Your task to perform on an android device: View the shopping cart on bestbuy. Image 0: 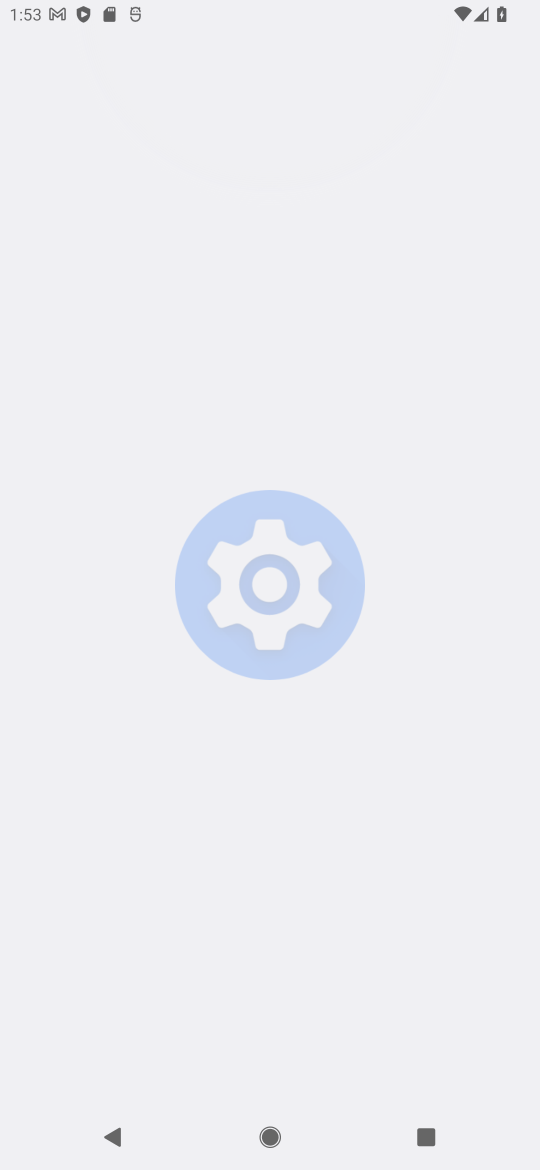
Step 0: press home button
Your task to perform on an android device: View the shopping cart on bestbuy. Image 1: 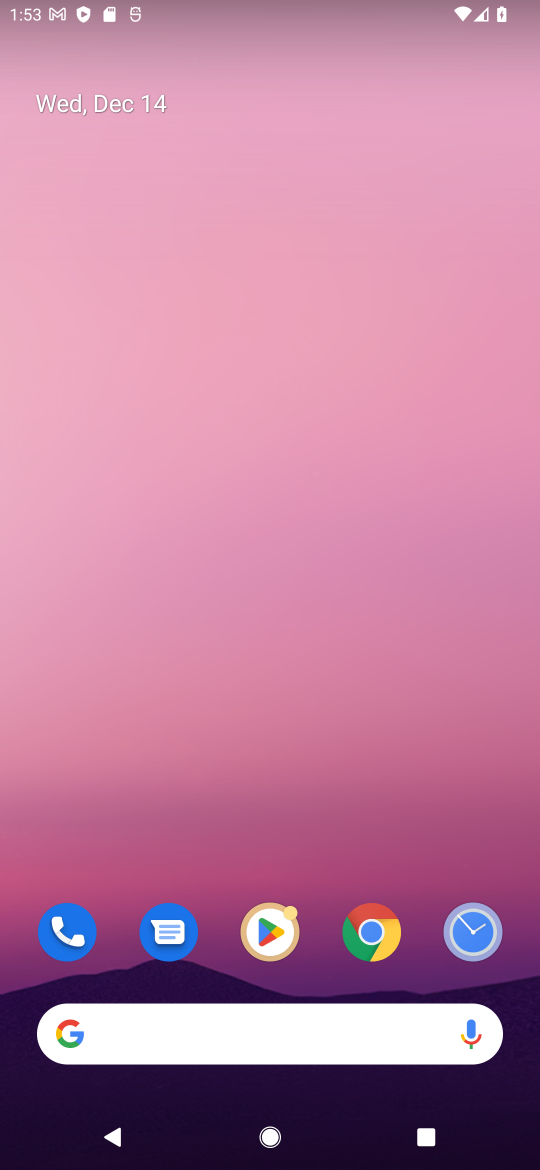
Step 1: click (280, 1012)
Your task to perform on an android device: View the shopping cart on bestbuy. Image 2: 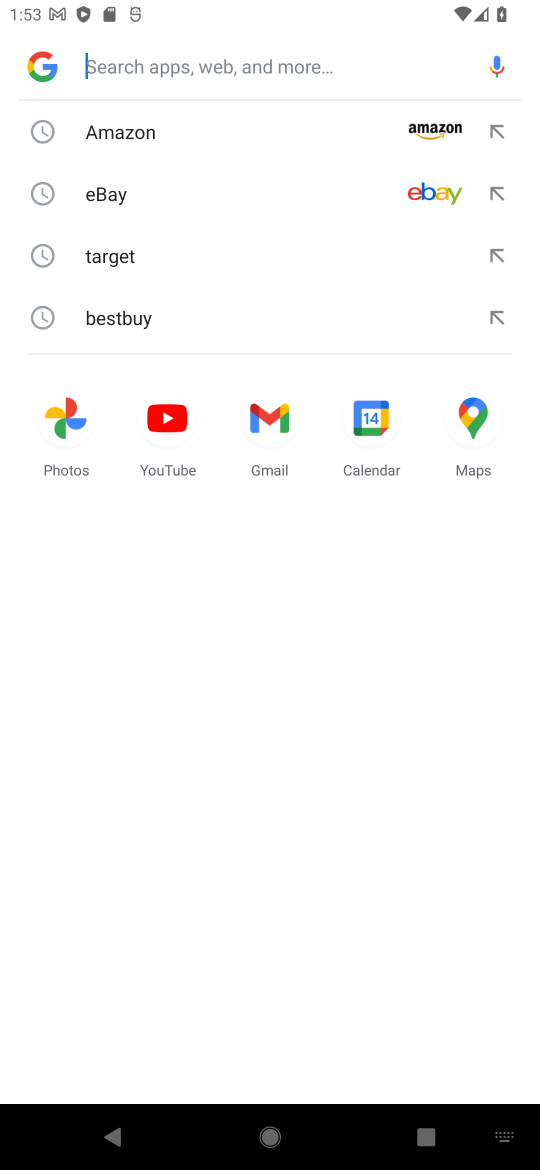
Step 2: click (108, 324)
Your task to perform on an android device: View the shopping cart on bestbuy. Image 3: 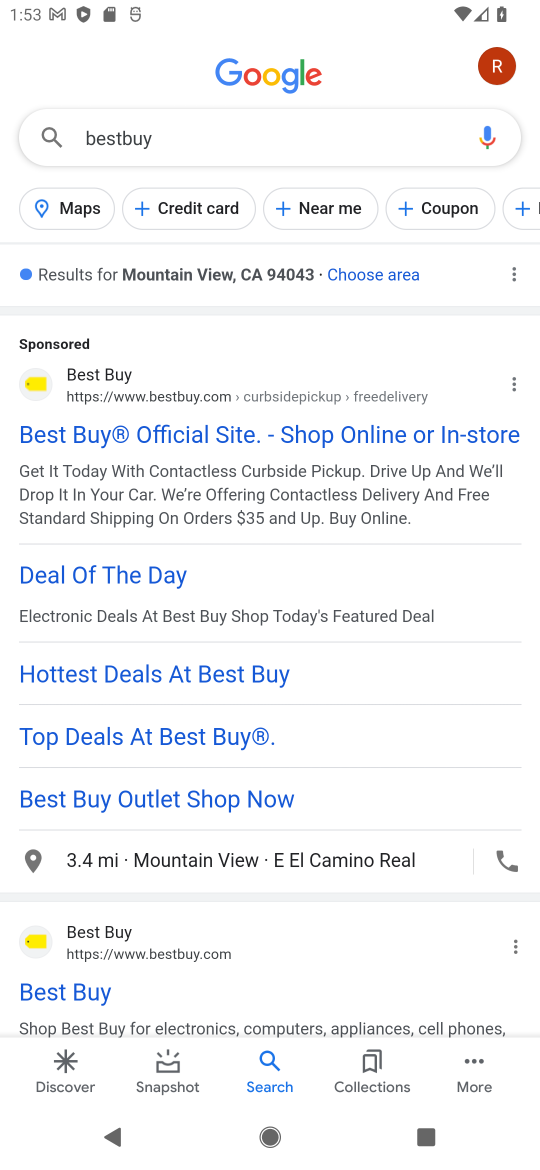
Step 3: click (101, 389)
Your task to perform on an android device: View the shopping cart on bestbuy. Image 4: 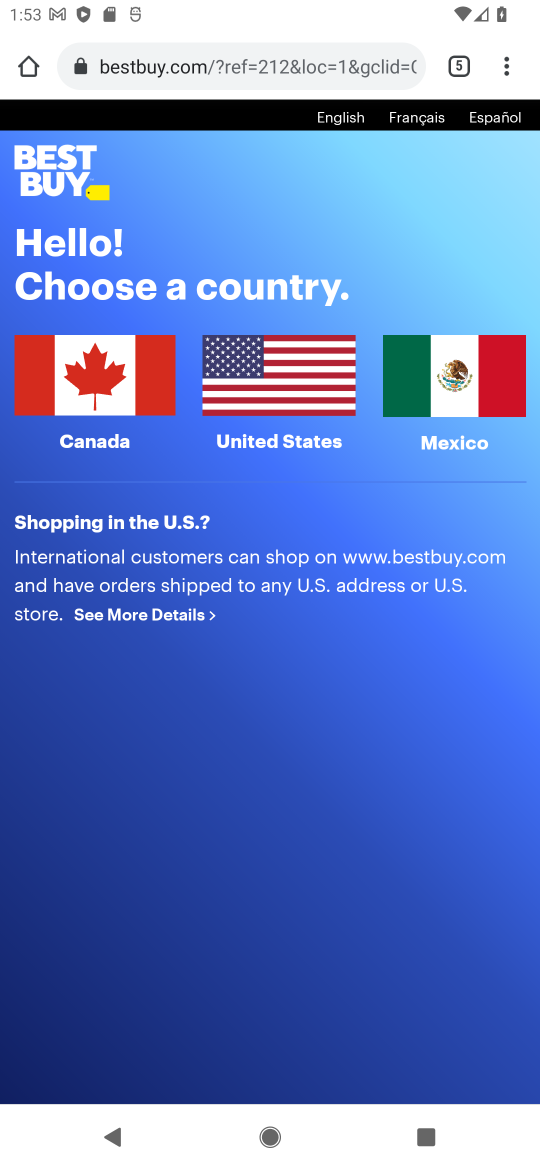
Step 4: click (278, 389)
Your task to perform on an android device: View the shopping cart on bestbuy. Image 5: 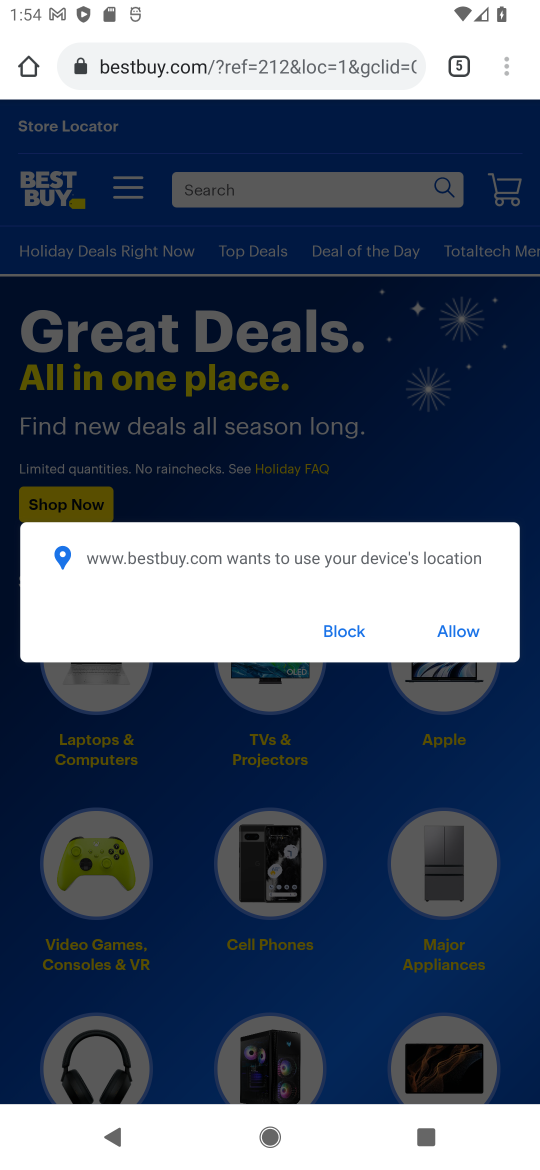
Step 5: click (505, 201)
Your task to perform on an android device: View the shopping cart on bestbuy. Image 6: 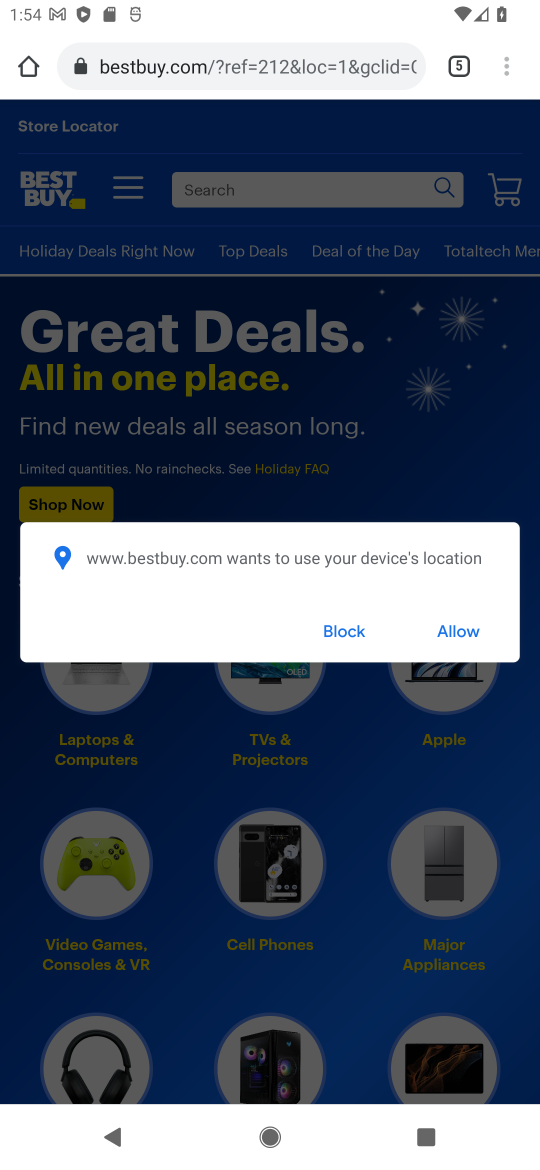
Step 6: click (329, 638)
Your task to perform on an android device: View the shopping cart on bestbuy. Image 7: 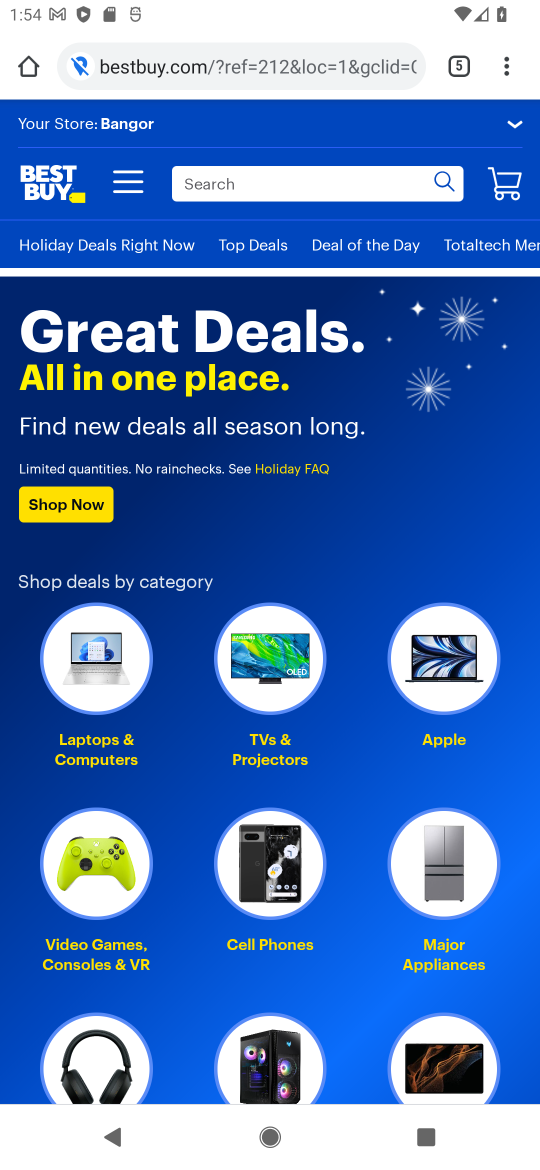
Step 7: click (510, 186)
Your task to perform on an android device: View the shopping cart on bestbuy. Image 8: 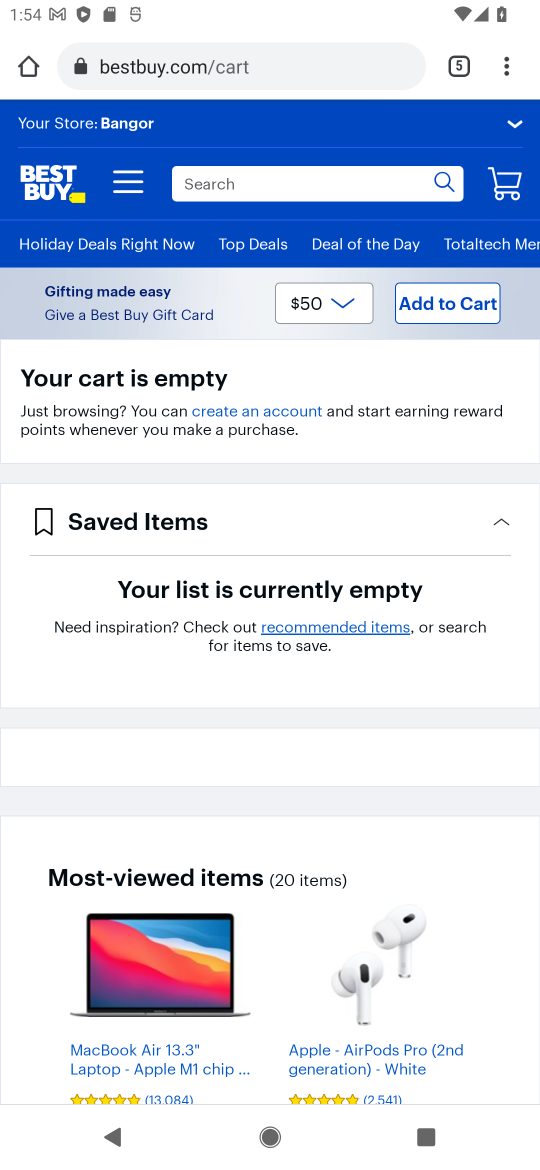
Step 8: task complete